Your task to perform on an android device: search for starred emails in the gmail app Image 0: 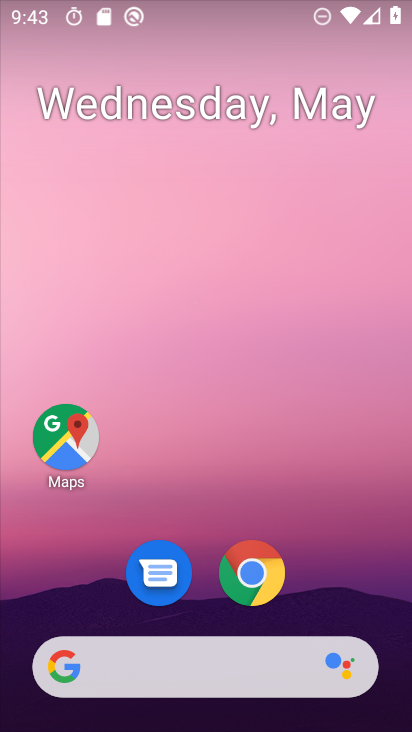
Step 0: click (249, 566)
Your task to perform on an android device: search for starred emails in the gmail app Image 1: 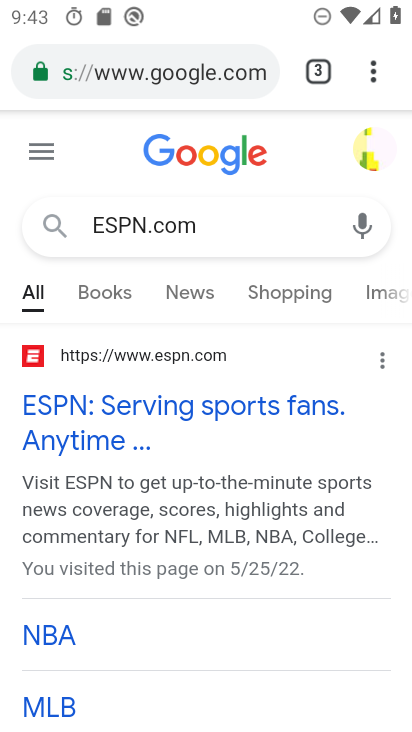
Step 1: press home button
Your task to perform on an android device: search for starred emails in the gmail app Image 2: 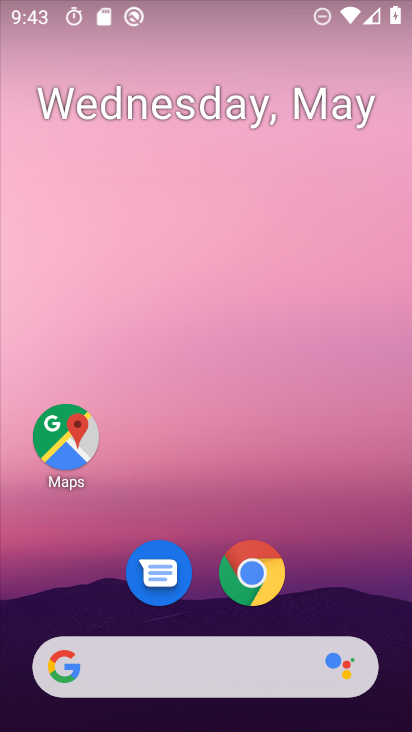
Step 2: drag from (393, 699) to (338, 343)
Your task to perform on an android device: search for starred emails in the gmail app Image 3: 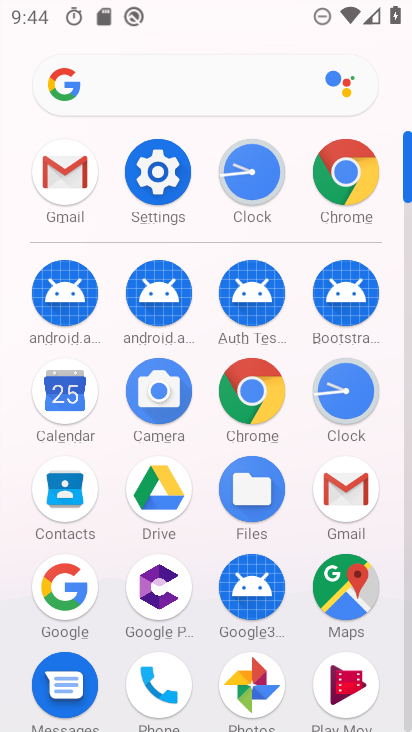
Step 3: click (337, 485)
Your task to perform on an android device: search for starred emails in the gmail app Image 4: 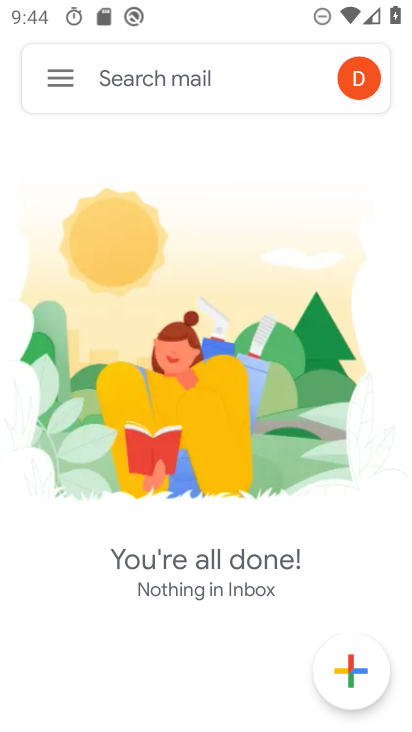
Step 4: click (54, 75)
Your task to perform on an android device: search for starred emails in the gmail app Image 5: 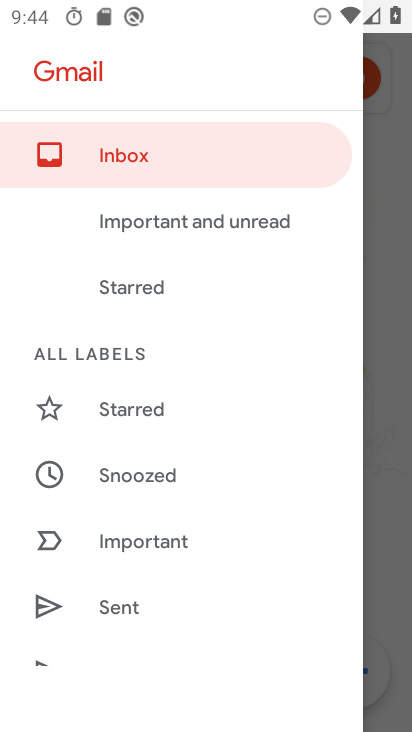
Step 5: click (141, 409)
Your task to perform on an android device: search for starred emails in the gmail app Image 6: 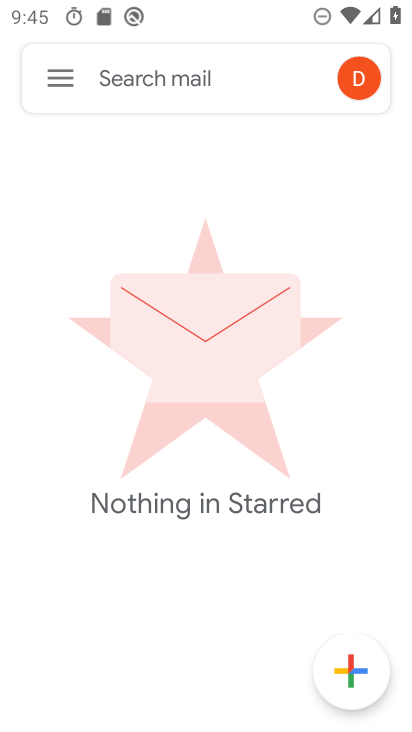
Step 6: task complete